Your task to perform on an android device: Go to notification settings Image 0: 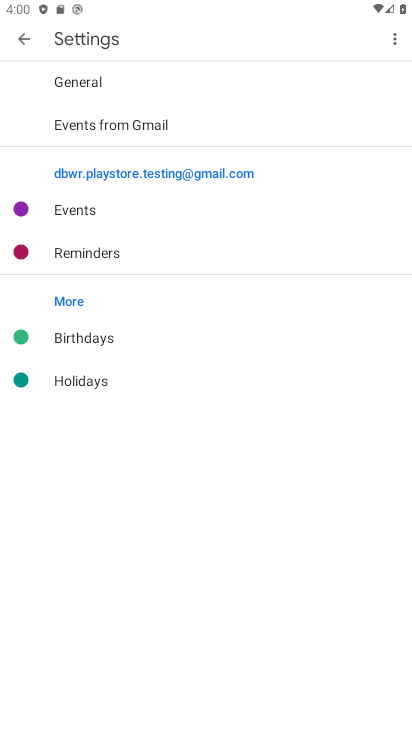
Step 0: press home button
Your task to perform on an android device: Go to notification settings Image 1: 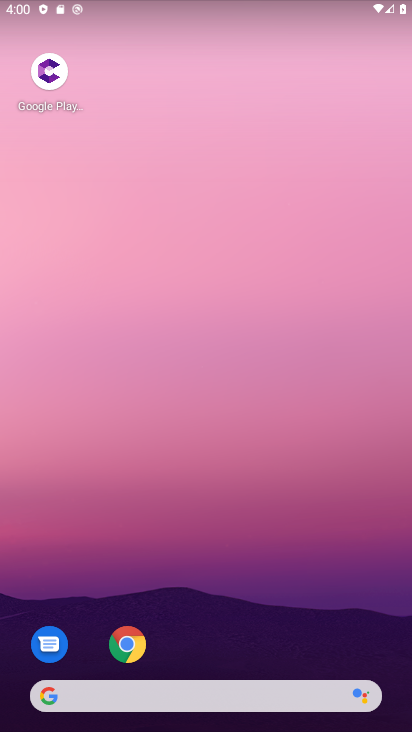
Step 1: drag from (213, 641) to (190, 81)
Your task to perform on an android device: Go to notification settings Image 2: 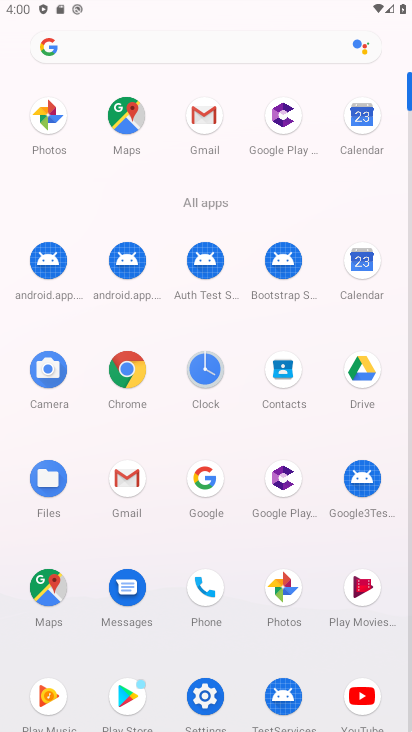
Step 2: click (196, 686)
Your task to perform on an android device: Go to notification settings Image 3: 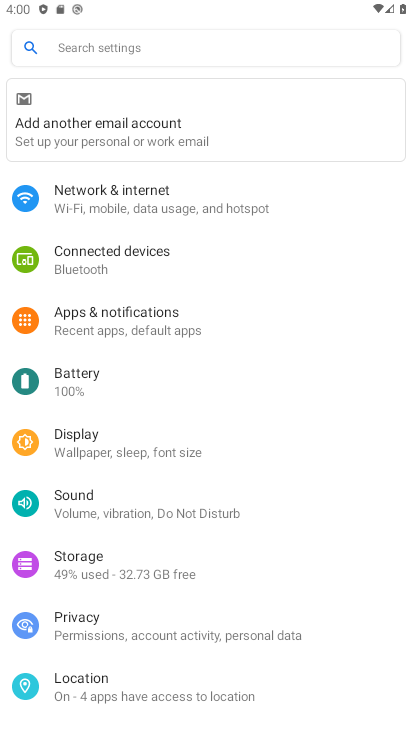
Step 3: click (214, 331)
Your task to perform on an android device: Go to notification settings Image 4: 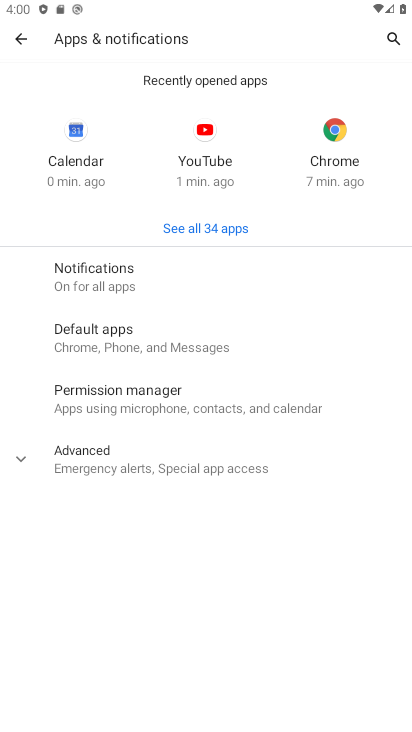
Step 4: click (170, 281)
Your task to perform on an android device: Go to notification settings Image 5: 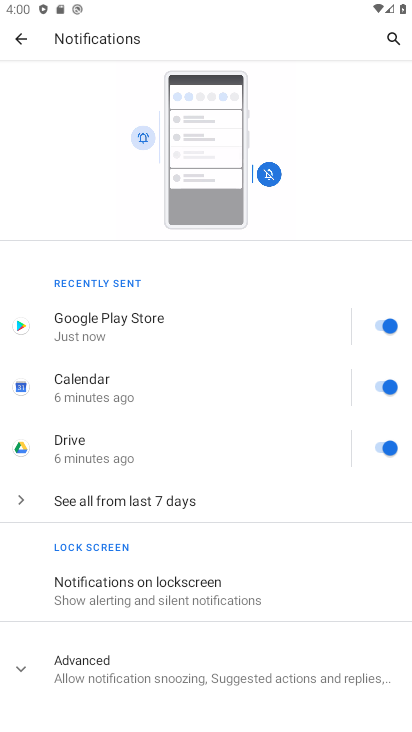
Step 5: task complete